Your task to perform on an android device: When is my next appointment? Image 0: 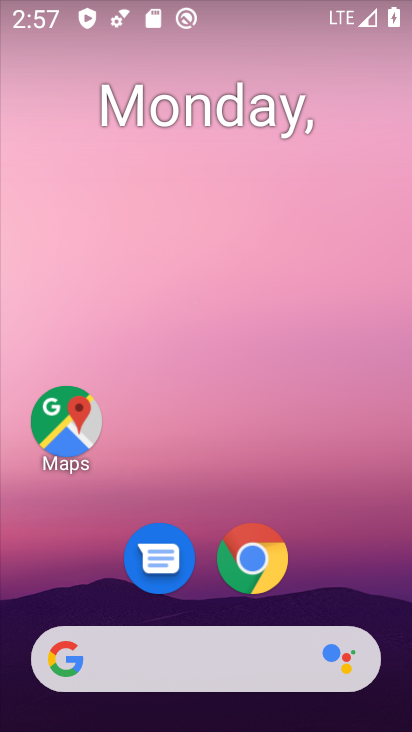
Step 0: drag from (364, 604) to (233, 2)
Your task to perform on an android device: When is my next appointment? Image 1: 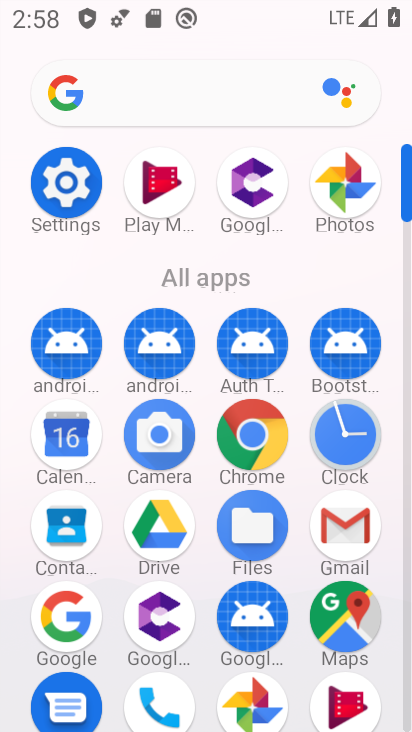
Step 1: click (56, 439)
Your task to perform on an android device: When is my next appointment? Image 2: 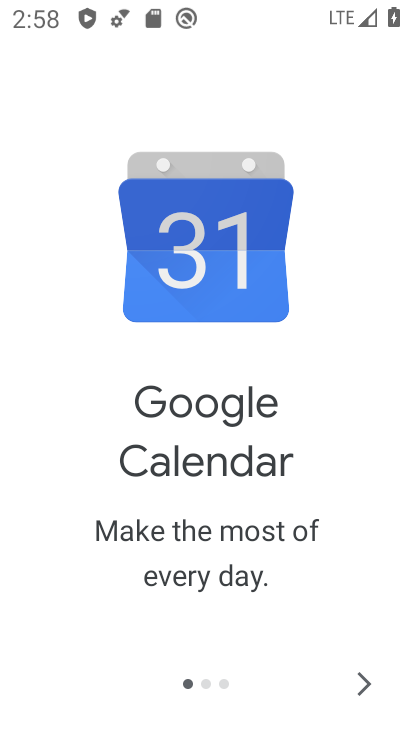
Step 2: click (369, 684)
Your task to perform on an android device: When is my next appointment? Image 3: 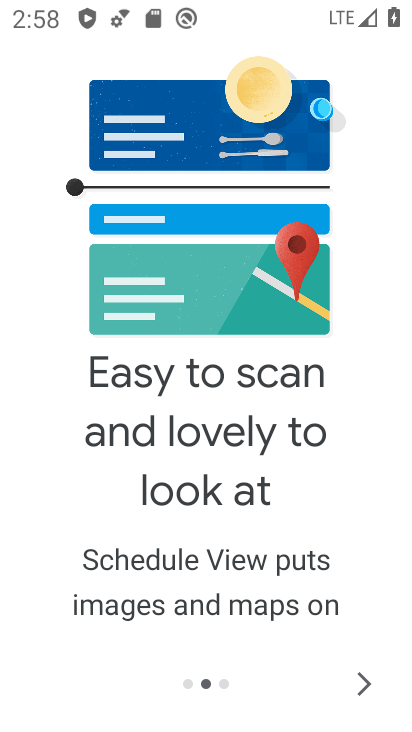
Step 3: click (369, 684)
Your task to perform on an android device: When is my next appointment? Image 4: 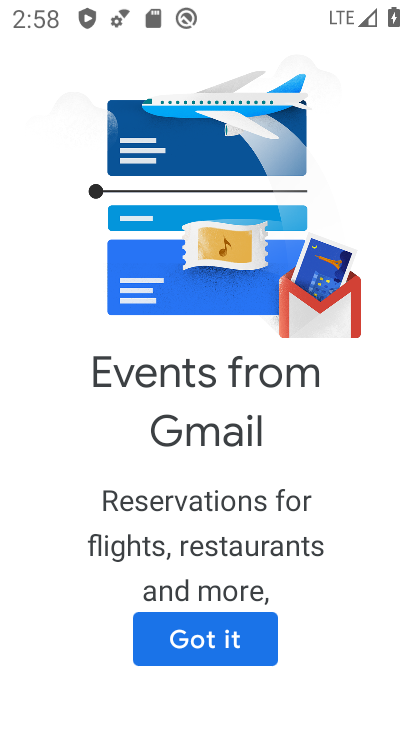
Step 4: click (188, 650)
Your task to perform on an android device: When is my next appointment? Image 5: 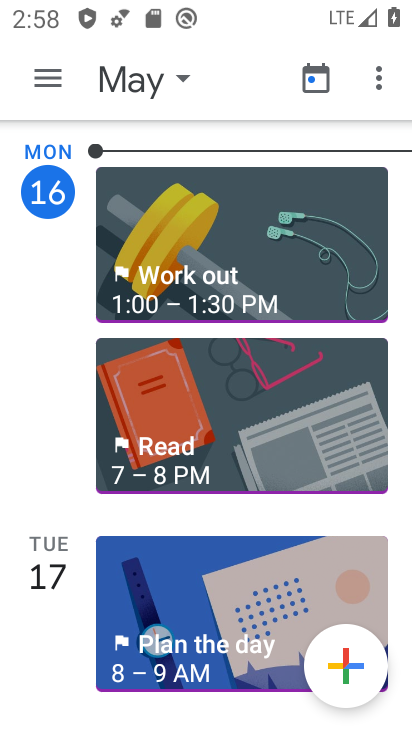
Step 5: drag from (234, 526) to (218, 48)
Your task to perform on an android device: When is my next appointment? Image 6: 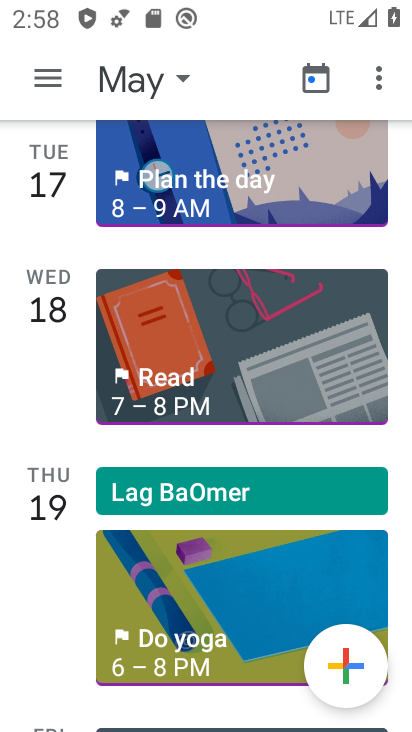
Step 6: drag from (221, 496) to (221, 155)
Your task to perform on an android device: When is my next appointment? Image 7: 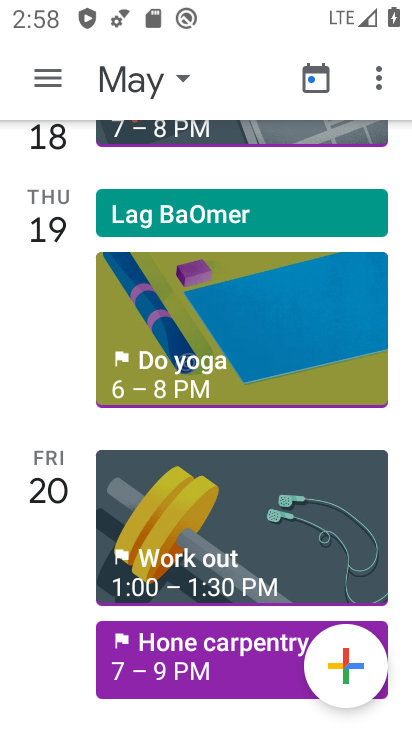
Step 7: drag from (160, 550) to (159, 205)
Your task to perform on an android device: When is my next appointment? Image 8: 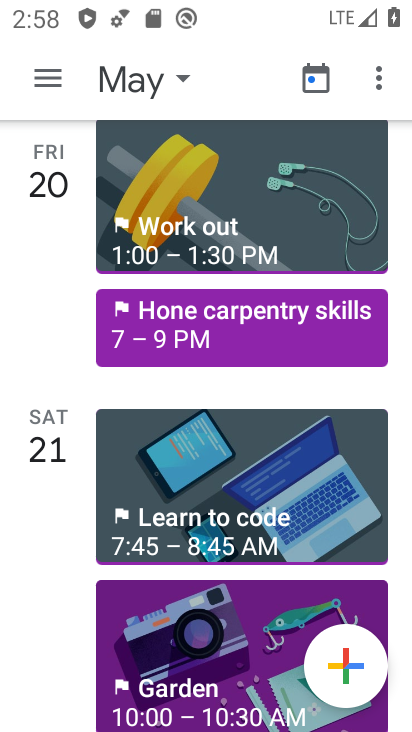
Step 8: click (159, 328)
Your task to perform on an android device: When is my next appointment? Image 9: 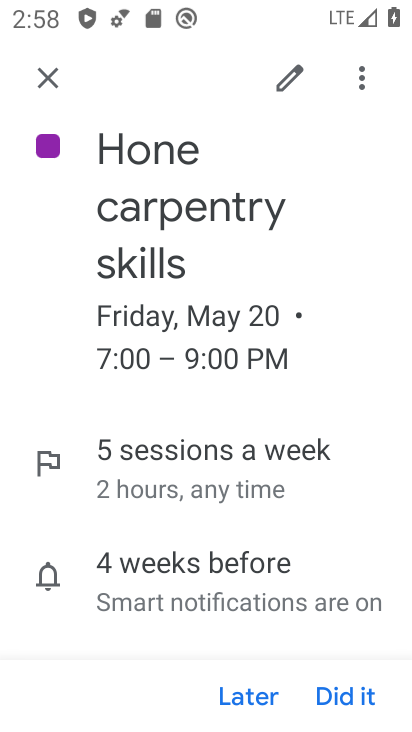
Step 9: task complete